Your task to perform on an android device: change the clock display to show seconds Image 0: 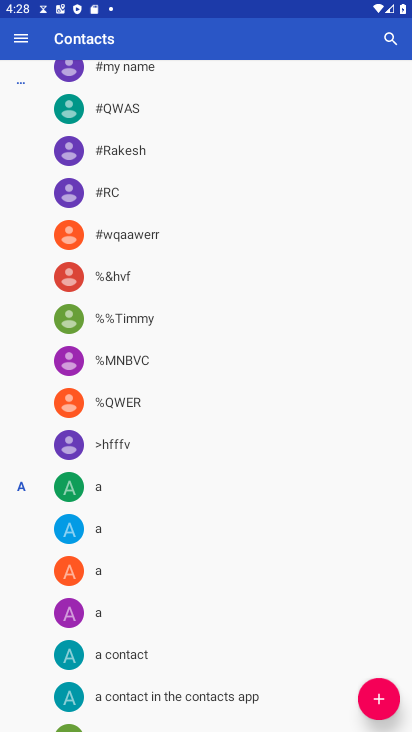
Step 0: press back button
Your task to perform on an android device: change the clock display to show seconds Image 1: 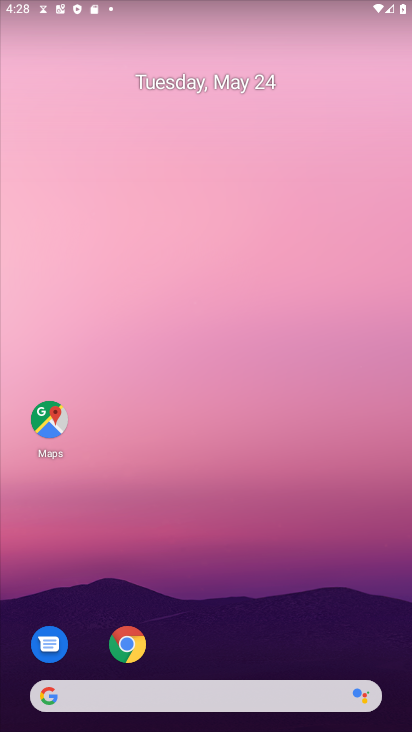
Step 1: drag from (262, 637) to (207, 197)
Your task to perform on an android device: change the clock display to show seconds Image 2: 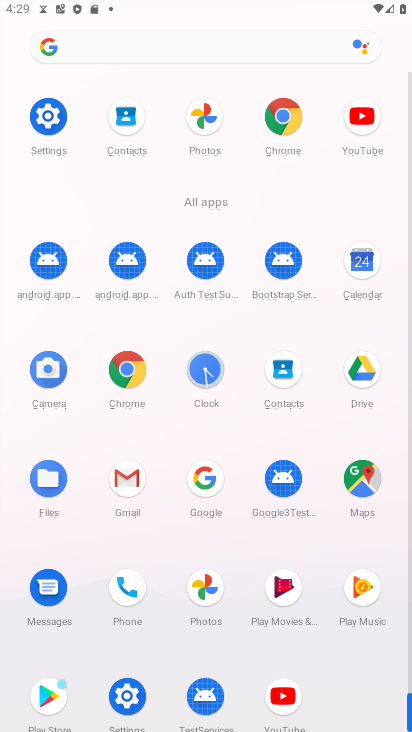
Step 2: click (207, 362)
Your task to perform on an android device: change the clock display to show seconds Image 3: 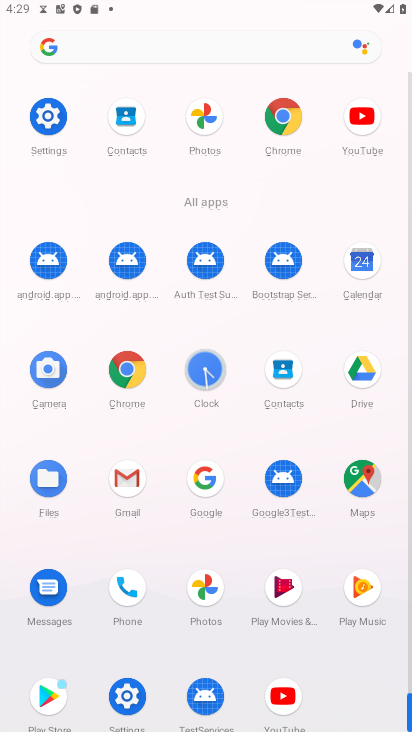
Step 3: click (205, 368)
Your task to perform on an android device: change the clock display to show seconds Image 4: 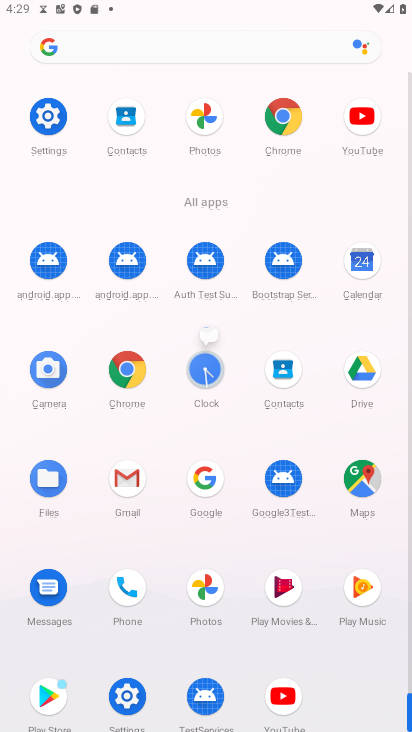
Step 4: click (206, 368)
Your task to perform on an android device: change the clock display to show seconds Image 5: 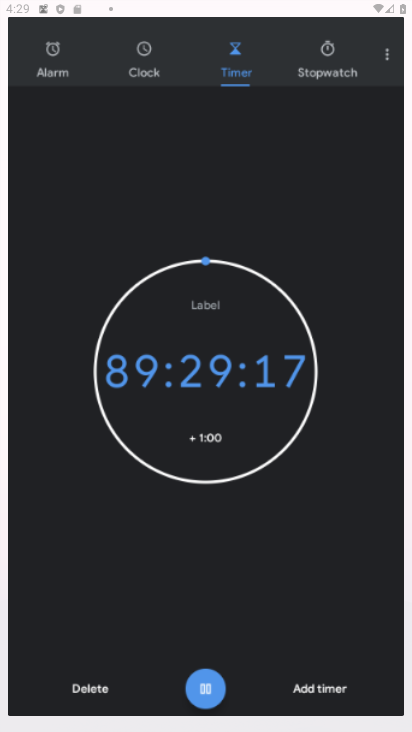
Step 5: click (208, 368)
Your task to perform on an android device: change the clock display to show seconds Image 6: 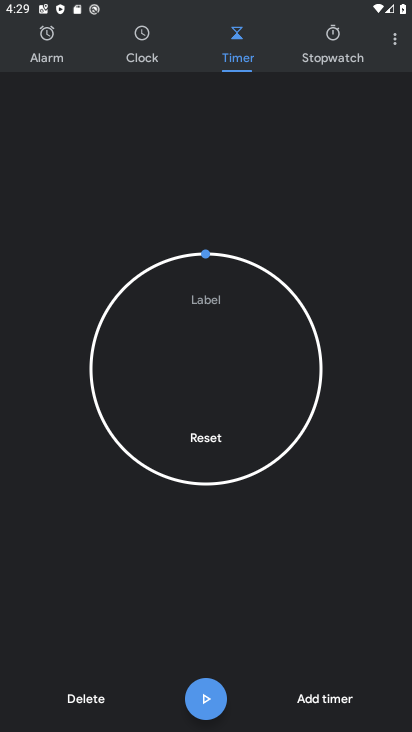
Step 6: click (389, 38)
Your task to perform on an android device: change the clock display to show seconds Image 7: 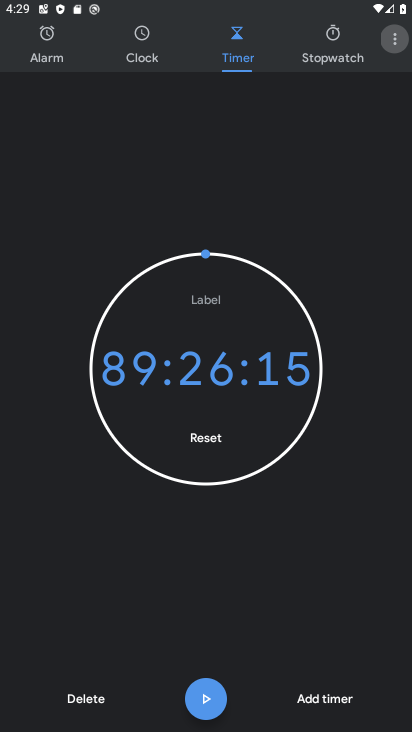
Step 7: click (389, 39)
Your task to perform on an android device: change the clock display to show seconds Image 8: 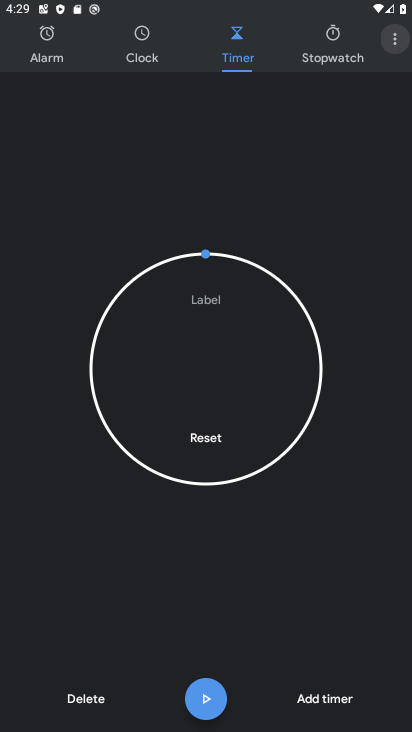
Step 8: click (389, 39)
Your task to perform on an android device: change the clock display to show seconds Image 9: 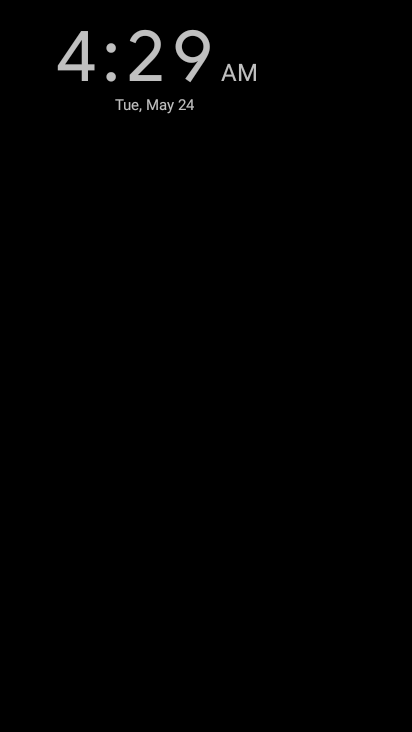
Step 9: press back button
Your task to perform on an android device: change the clock display to show seconds Image 10: 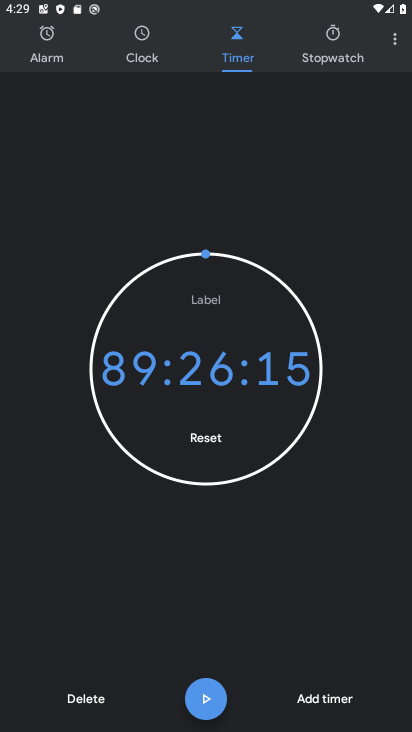
Step 10: drag from (394, 39) to (354, 114)
Your task to perform on an android device: change the clock display to show seconds Image 11: 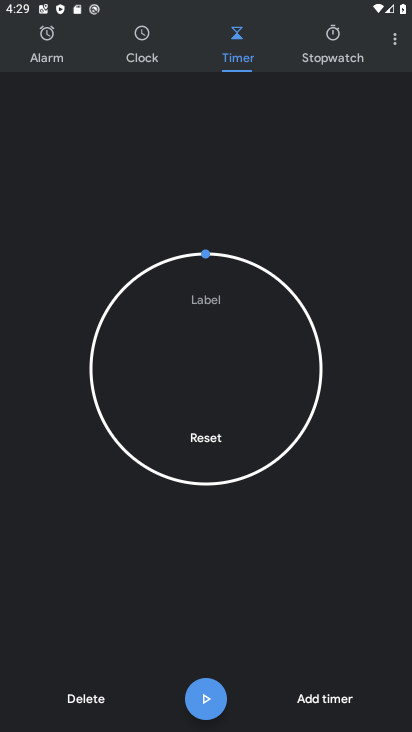
Step 11: click (392, 41)
Your task to perform on an android device: change the clock display to show seconds Image 12: 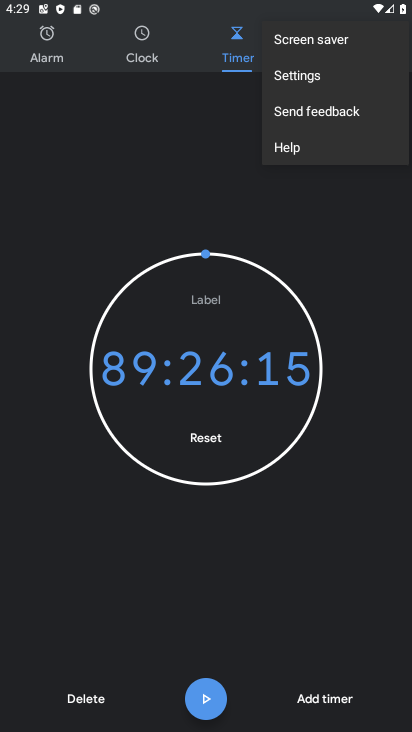
Step 12: click (303, 79)
Your task to perform on an android device: change the clock display to show seconds Image 13: 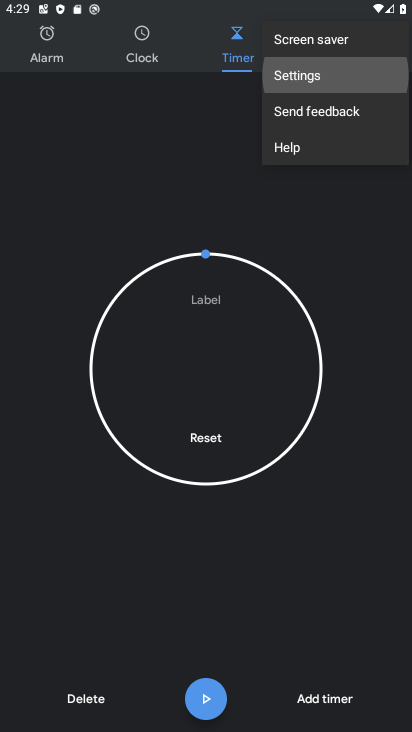
Step 13: click (304, 78)
Your task to perform on an android device: change the clock display to show seconds Image 14: 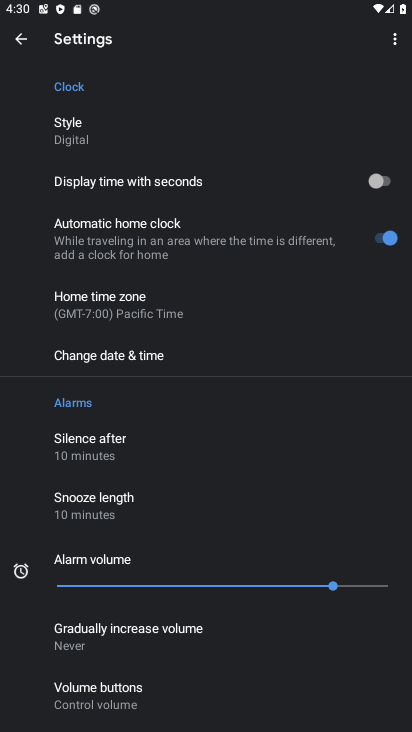
Step 14: click (377, 181)
Your task to perform on an android device: change the clock display to show seconds Image 15: 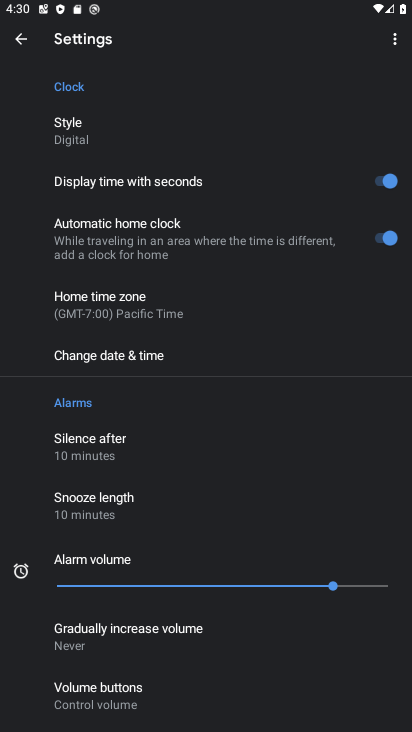
Step 15: task complete